Your task to perform on an android device: Go to settings Image 0: 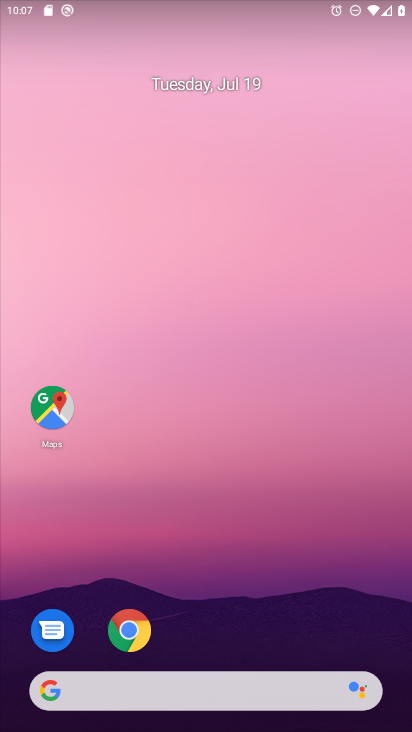
Step 0: drag from (171, 647) to (113, 155)
Your task to perform on an android device: Go to settings Image 1: 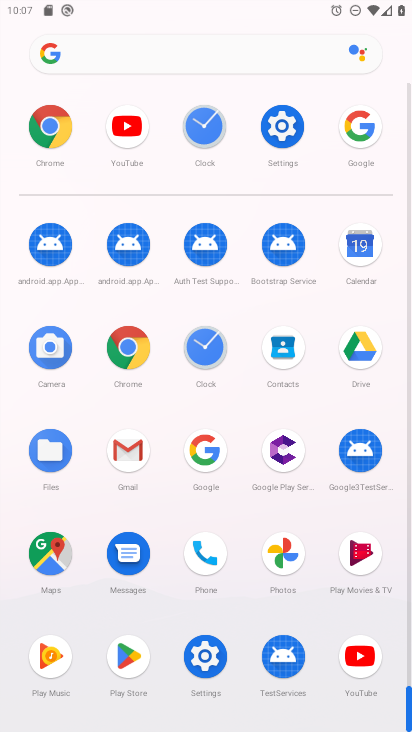
Step 1: click (271, 146)
Your task to perform on an android device: Go to settings Image 2: 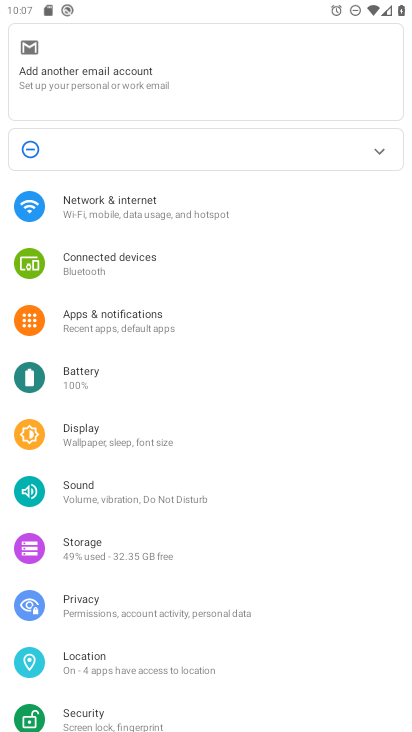
Step 2: task complete